Your task to perform on an android device: toggle show notifications on the lock screen Image 0: 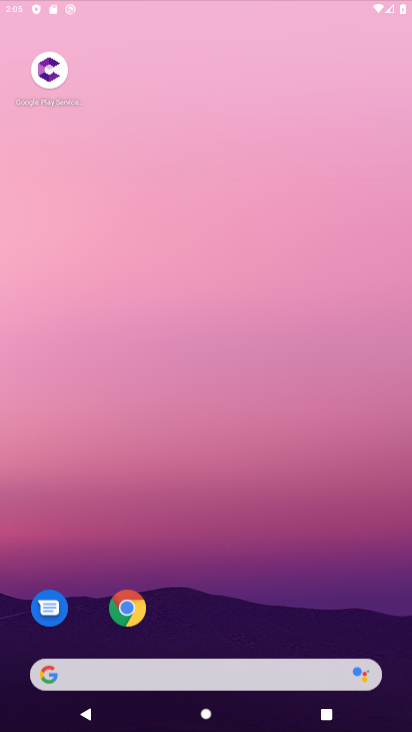
Step 0: press home button
Your task to perform on an android device: toggle show notifications on the lock screen Image 1: 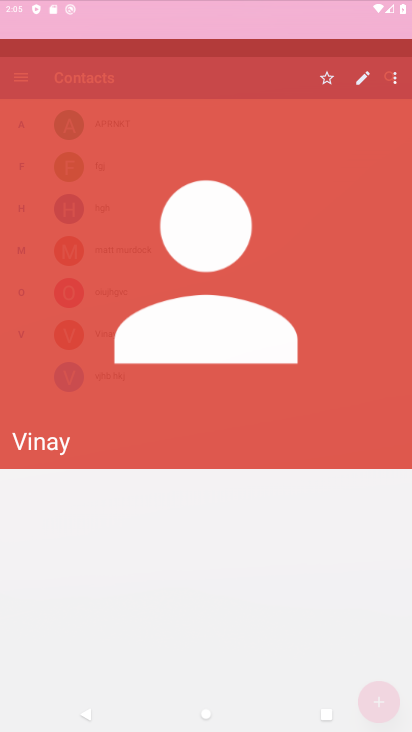
Step 1: drag from (173, 629) to (188, 134)
Your task to perform on an android device: toggle show notifications on the lock screen Image 2: 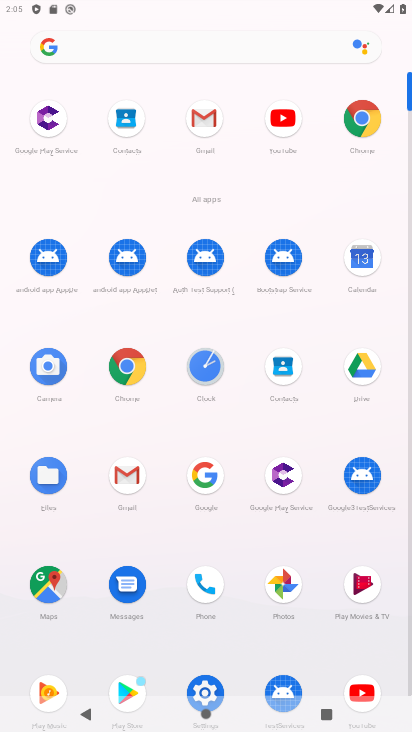
Step 2: press home button
Your task to perform on an android device: toggle show notifications on the lock screen Image 3: 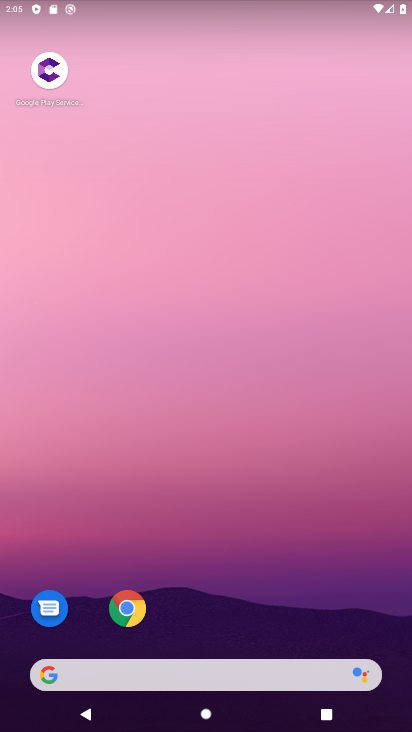
Step 3: drag from (226, 612) to (165, 51)
Your task to perform on an android device: toggle show notifications on the lock screen Image 4: 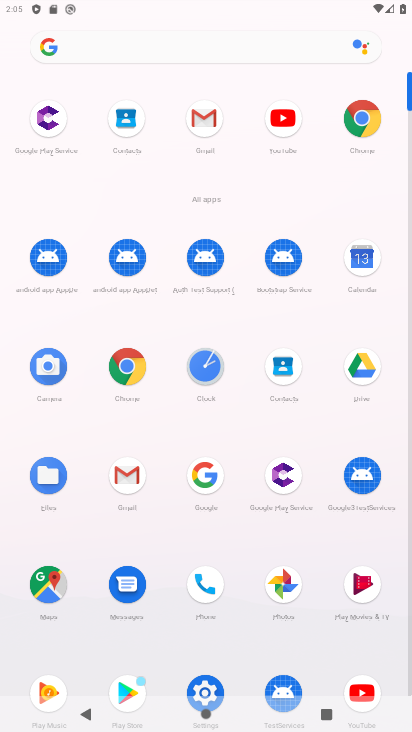
Step 4: click (201, 686)
Your task to perform on an android device: toggle show notifications on the lock screen Image 5: 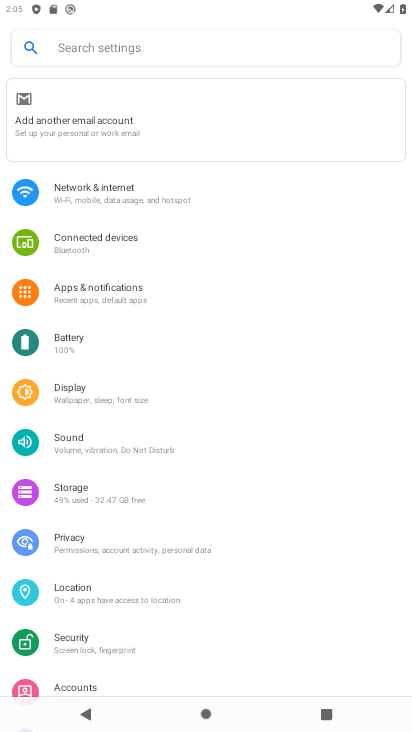
Step 5: click (94, 290)
Your task to perform on an android device: toggle show notifications on the lock screen Image 6: 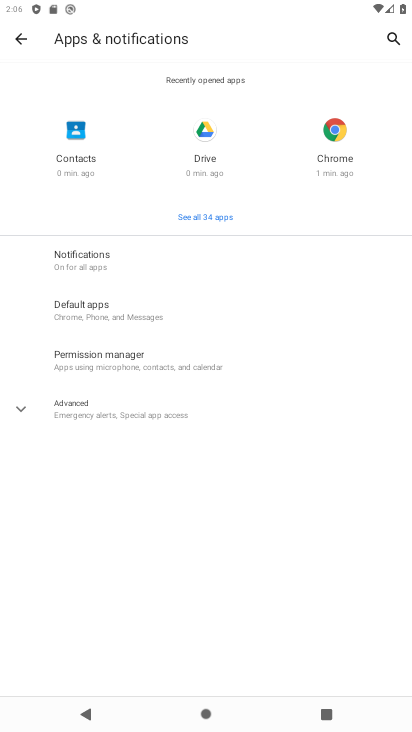
Step 6: click (66, 254)
Your task to perform on an android device: toggle show notifications on the lock screen Image 7: 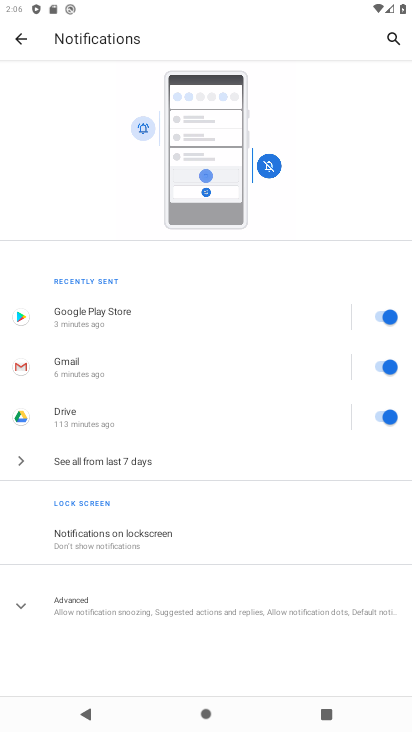
Step 7: click (138, 540)
Your task to perform on an android device: toggle show notifications on the lock screen Image 8: 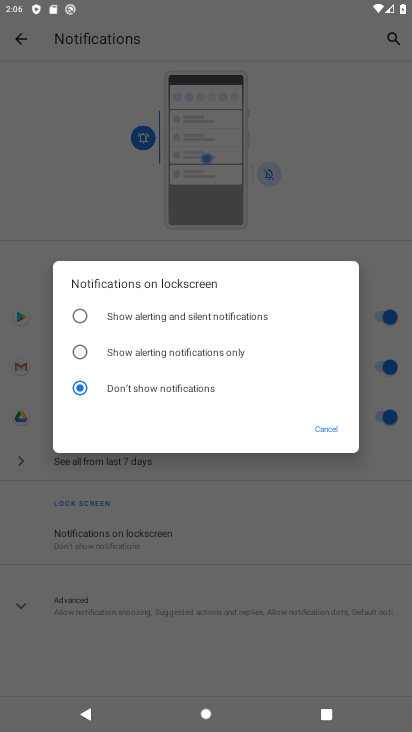
Step 8: click (77, 317)
Your task to perform on an android device: toggle show notifications on the lock screen Image 9: 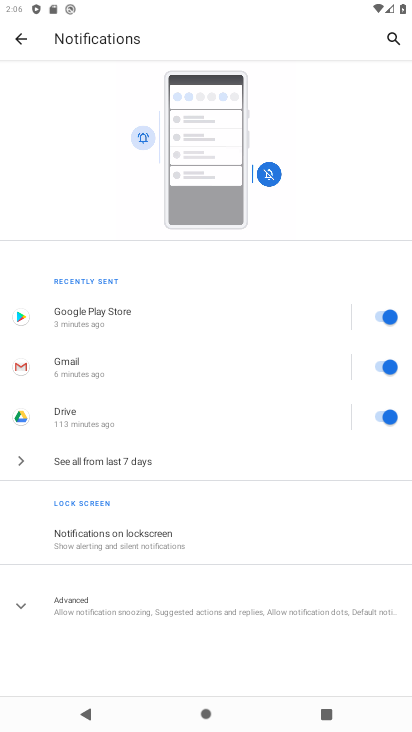
Step 9: task complete